Your task to perform on an android device: What's US dollar exchange rate against the Japanese Yen? Image 0: 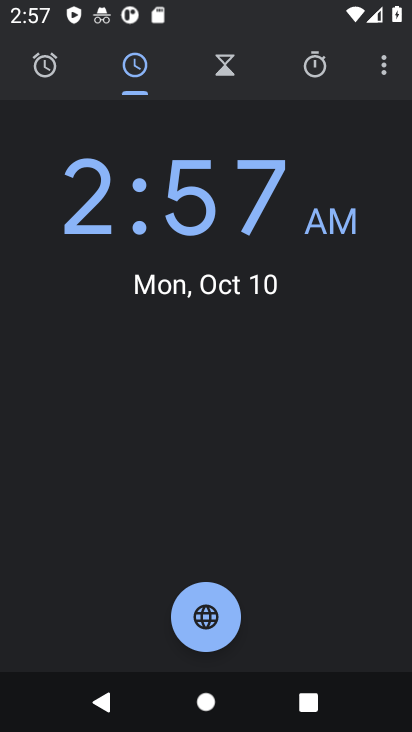
Step 0: press home button
Your task to perform on an android device: What's US dollar exchange rate against the Japanese Yen? Image 1: 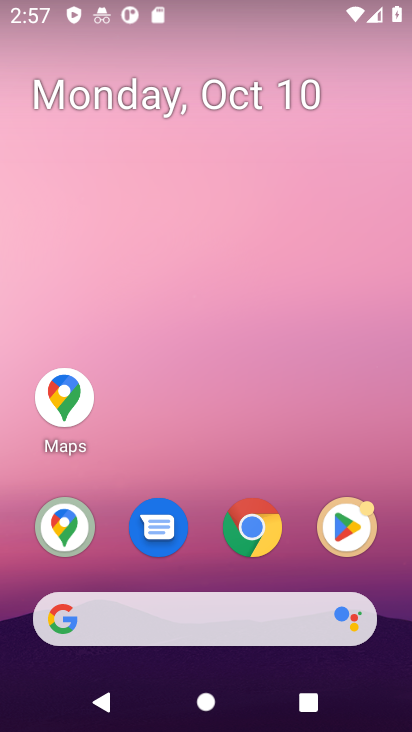
Step 1: click (253, 523)
Your task to perform on an android device: What's US dollar exchange rate against the Japanese Yen? Image 2: 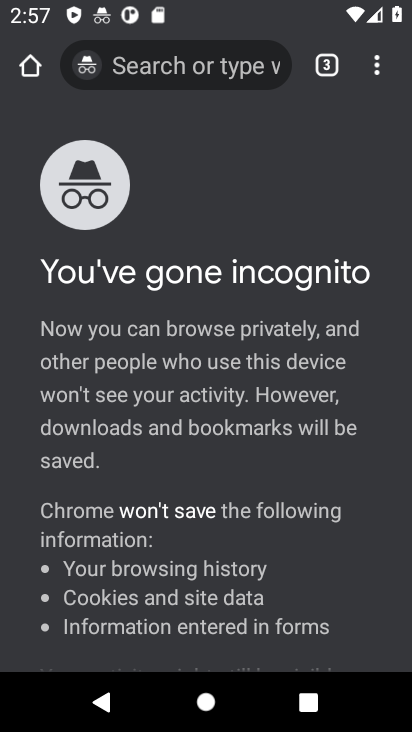
Step 2: click (224, 70)
Your task to perform on an android device: What's US dollar exchange rate against the Japanese Yen? Image 3: 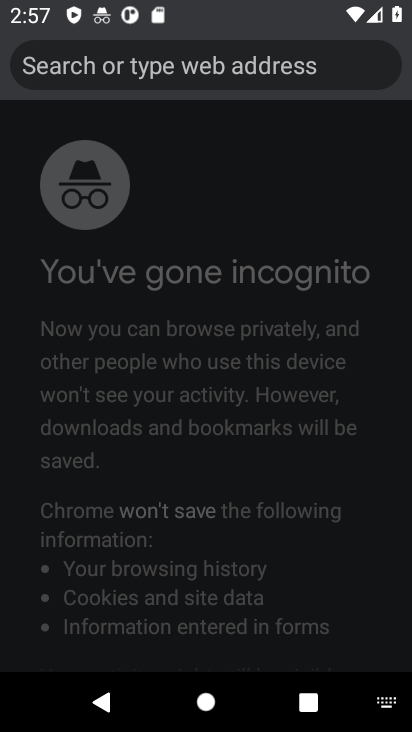
Step 3: type "What's US dollar exchange rate against the Japanese Yen?"
Your task to perform on an android device: What's US dollar exchange rate against the Japanese Yen? Image 4: 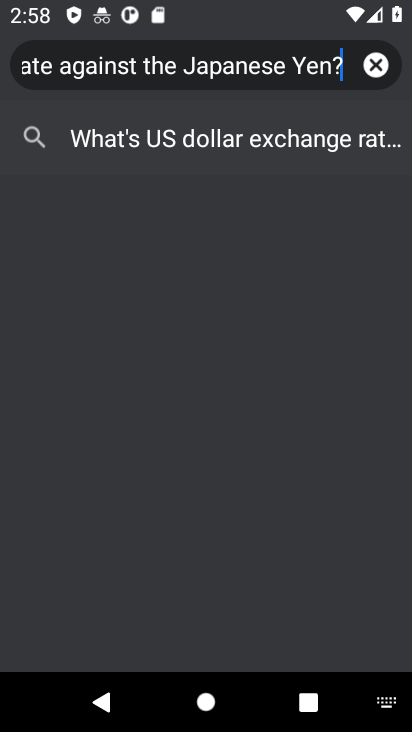
Step 4: click (352, 150)
Your task to perform on an android device: What's US dollar exchange rate against the Japanese Yen? Image 5: 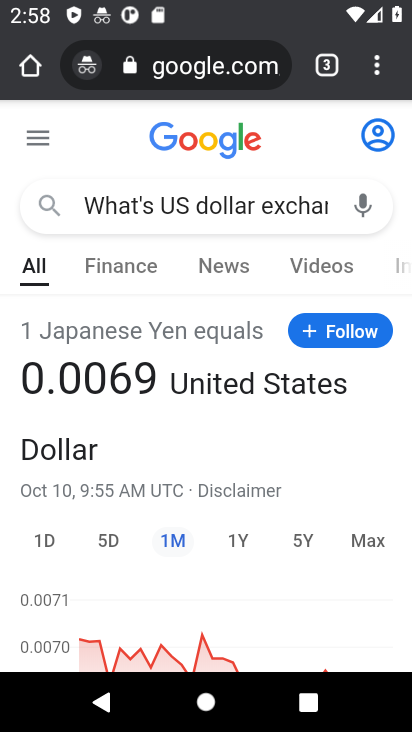
Step 5: task complete